Your task to perform on an android device: What is the recent news? Image 0: 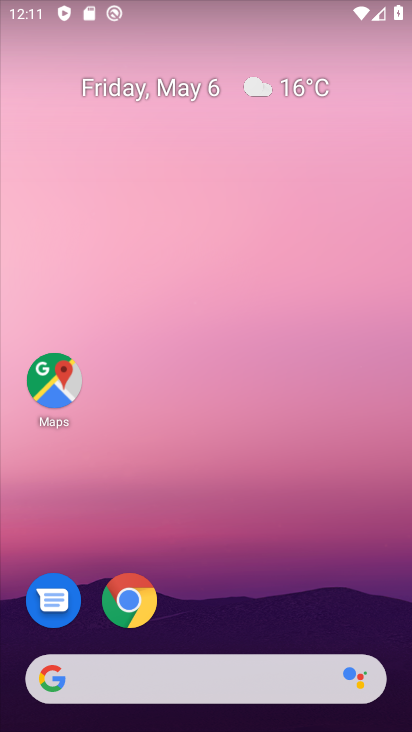
Step 0: click (189, 690)
Your task to perform on an android device: What is the recent news? Image 1: 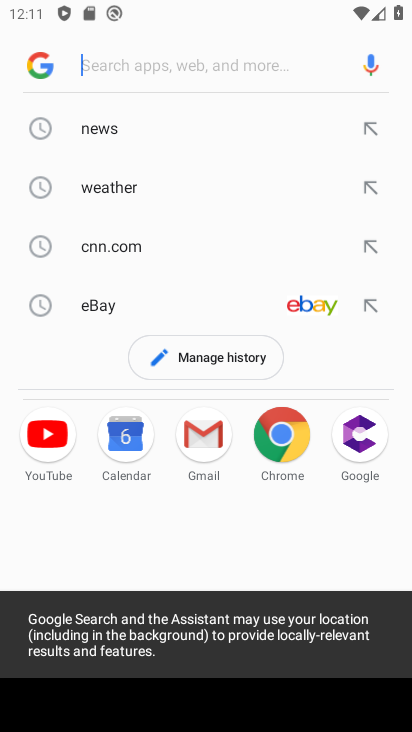
Step 1: click (104, 133)
Your task to perform on an android device: What is the recent news? Image 2: 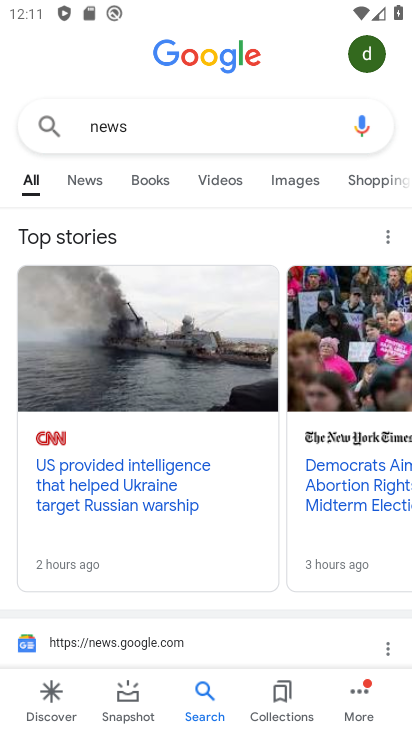
Step 2: task complete